Your task to perform on an android device: remove spam from my inbox in the gmail app Image 0: 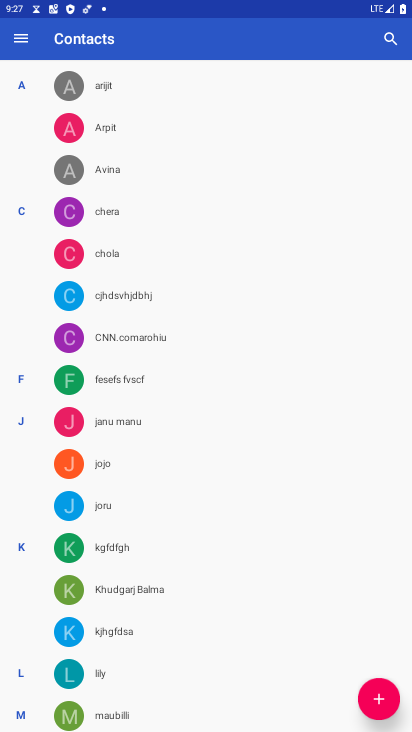
Step 0: press home button
Your task to perform on an android device: remove spam from my inbox in the gmail app Image 1: 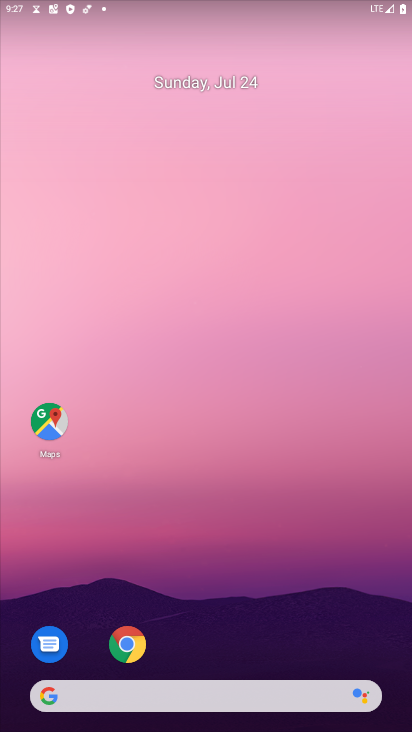
Step 1: drag from (311, 627) to (356, 147)
Your task to perform on an android device: remove spam from my inbox in the gmail app Image 2: 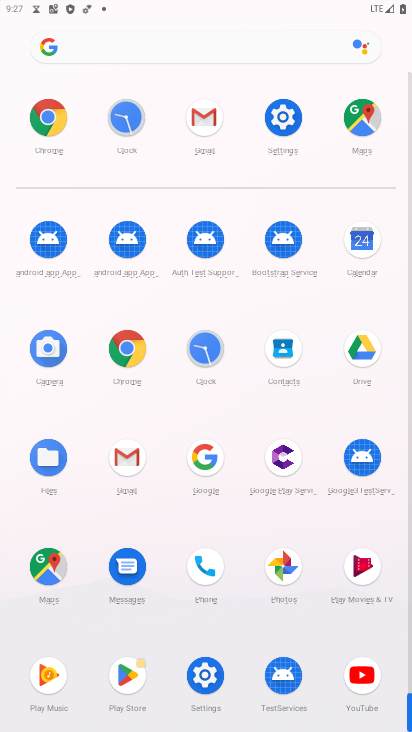
Step 2: click (128, 449)
Your task to perform on an android device: remove spam from my inbox in the gmail app Image 3: 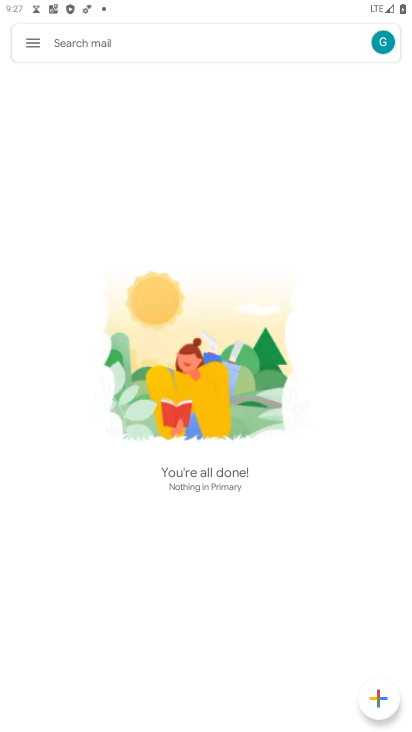
Step 3: click (23, 40)
Your task to perform on an android device: remove spam from my inbox in the gmail app Image 4: 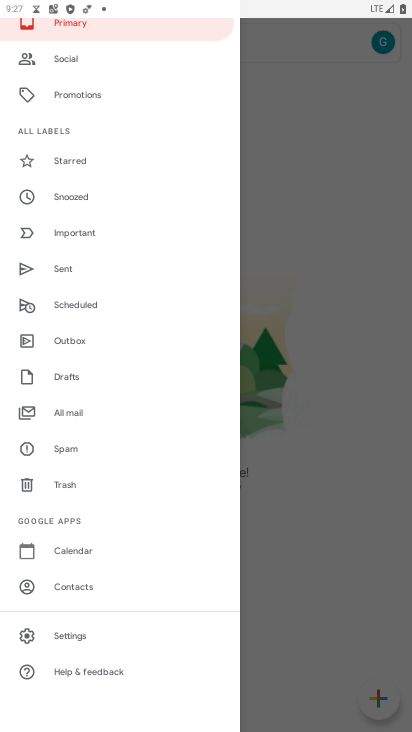
Step 4: click (61, 451)
Your task to perform on an android device: remove spam from my inbox in the gmail app Image 5: 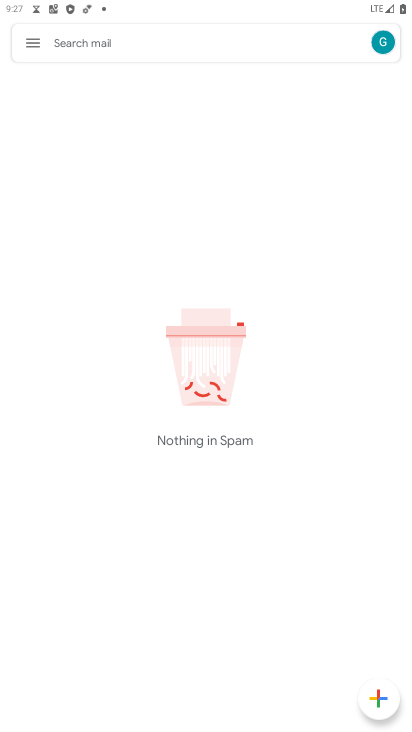
Step 5: task complete